Your task to perform on an android device: change notifications settings Image 0: 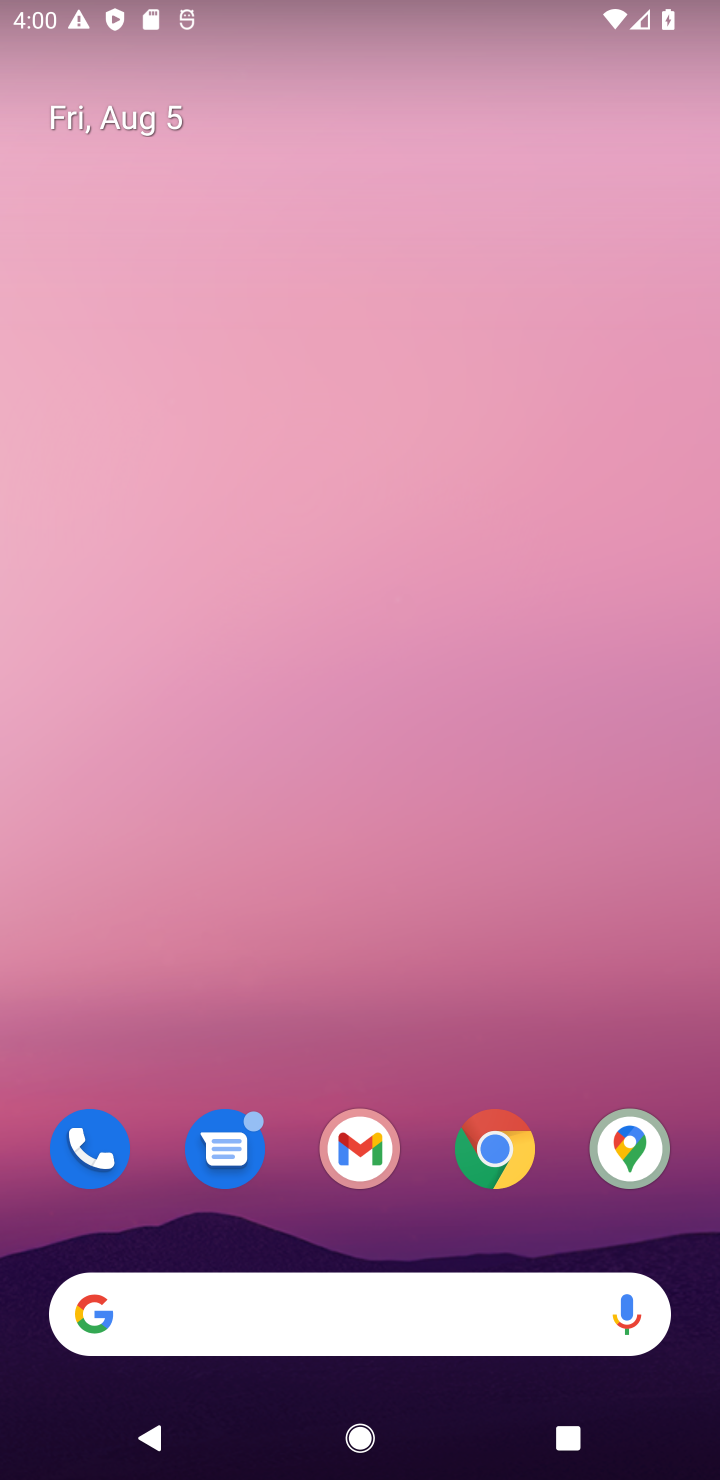
Step 0: drag from (272, 1219) to (579, 59)
Your task to perform on an android device: change notifications settings Image 1: 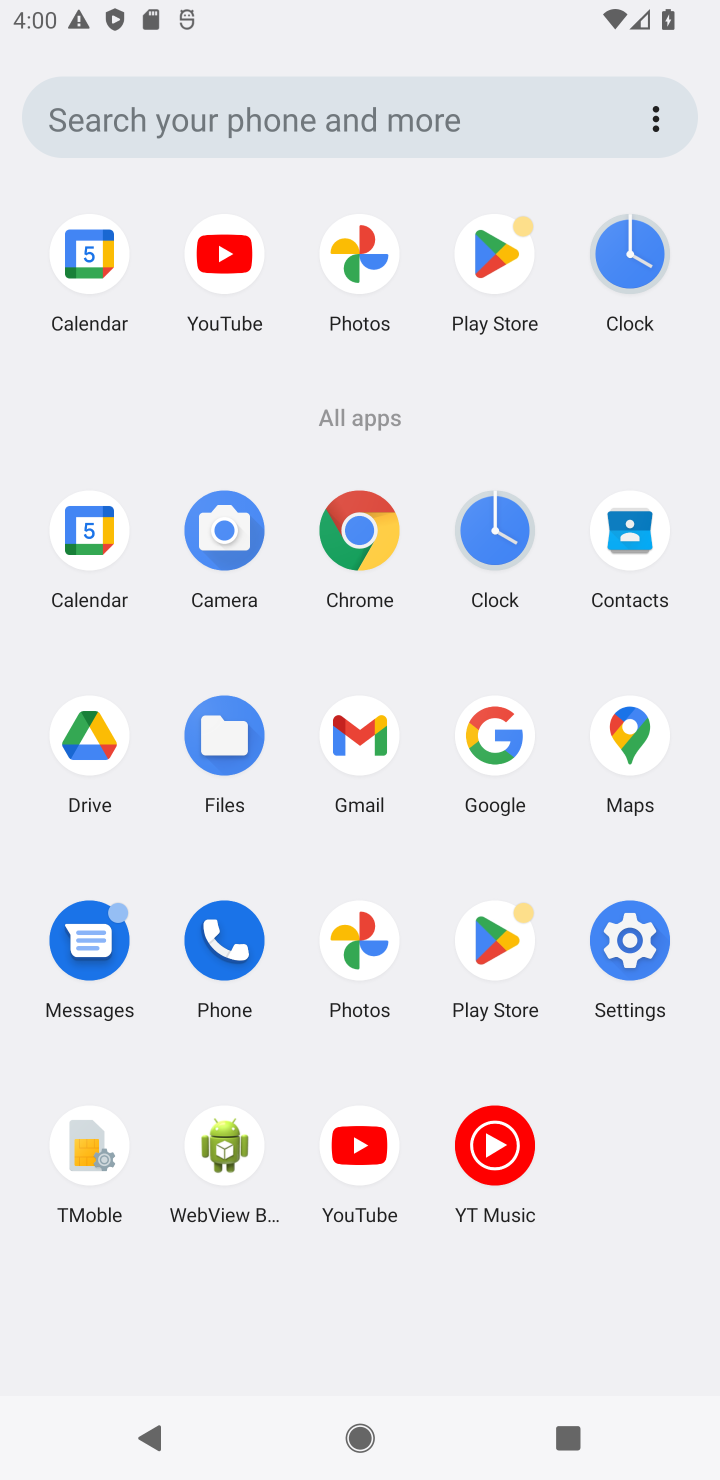
Step 1: click (622, 945)
Your task to perform on an android device: change notifications settings Image 2: 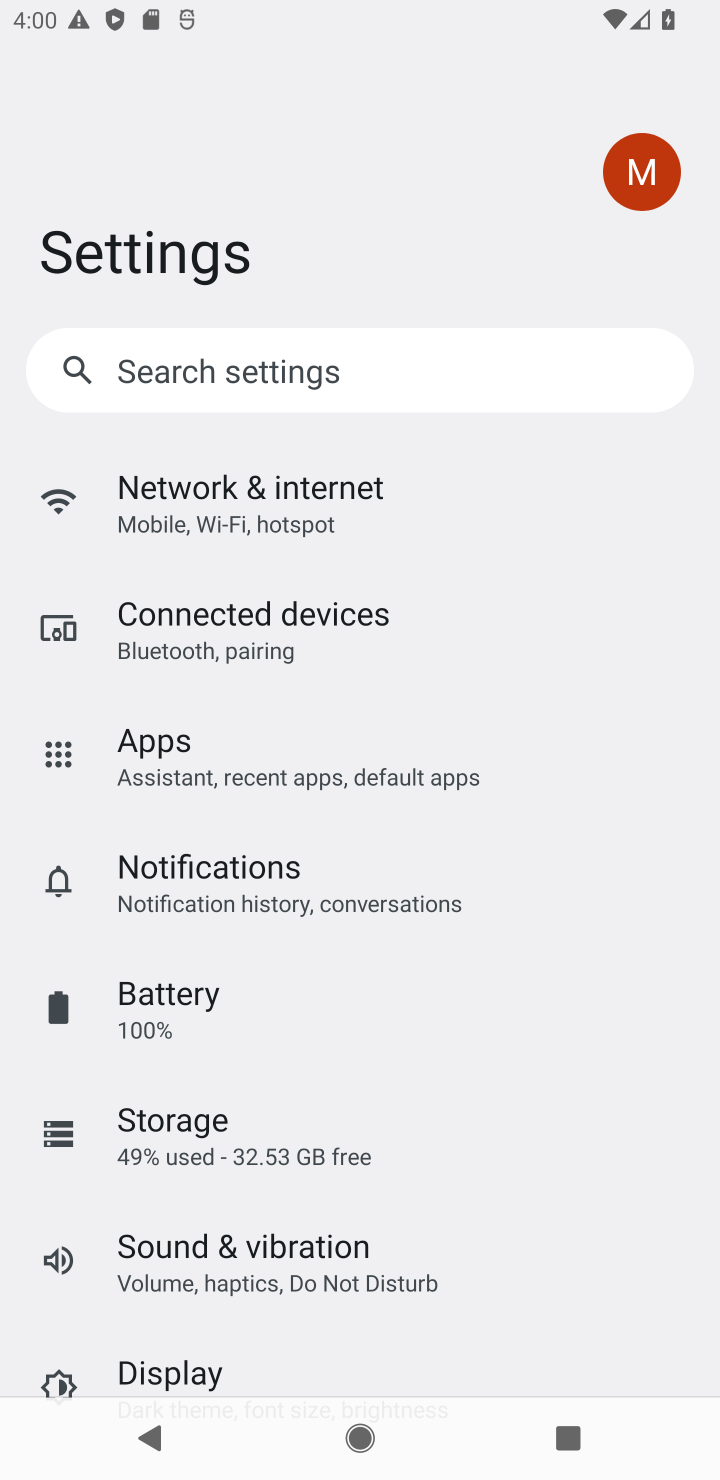
Step 2: click (281, 873)
Your task to perform on an android device: change notifications settings Image 3: 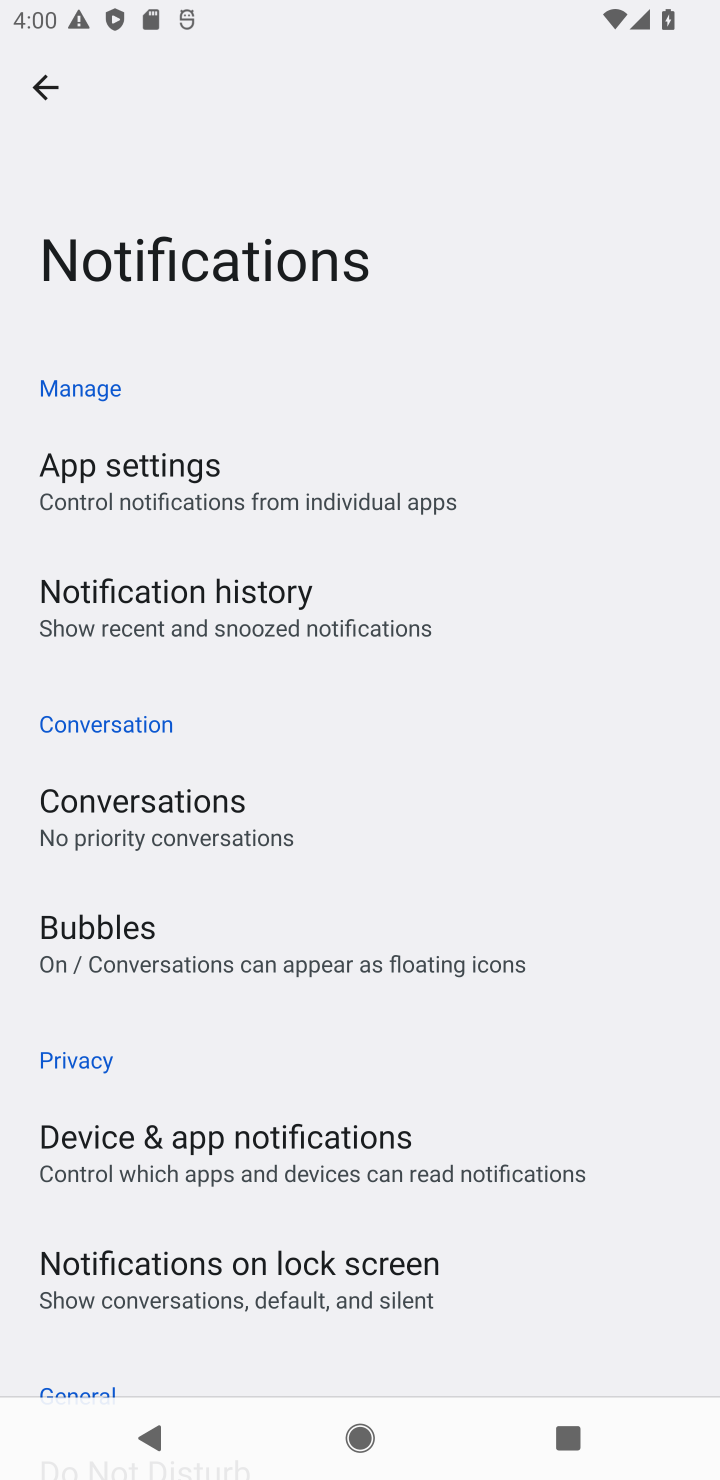
Step 3: drag from (306, 1273) to (463, 501)
Your task to perform on an android device: change notifications settings Image 4: 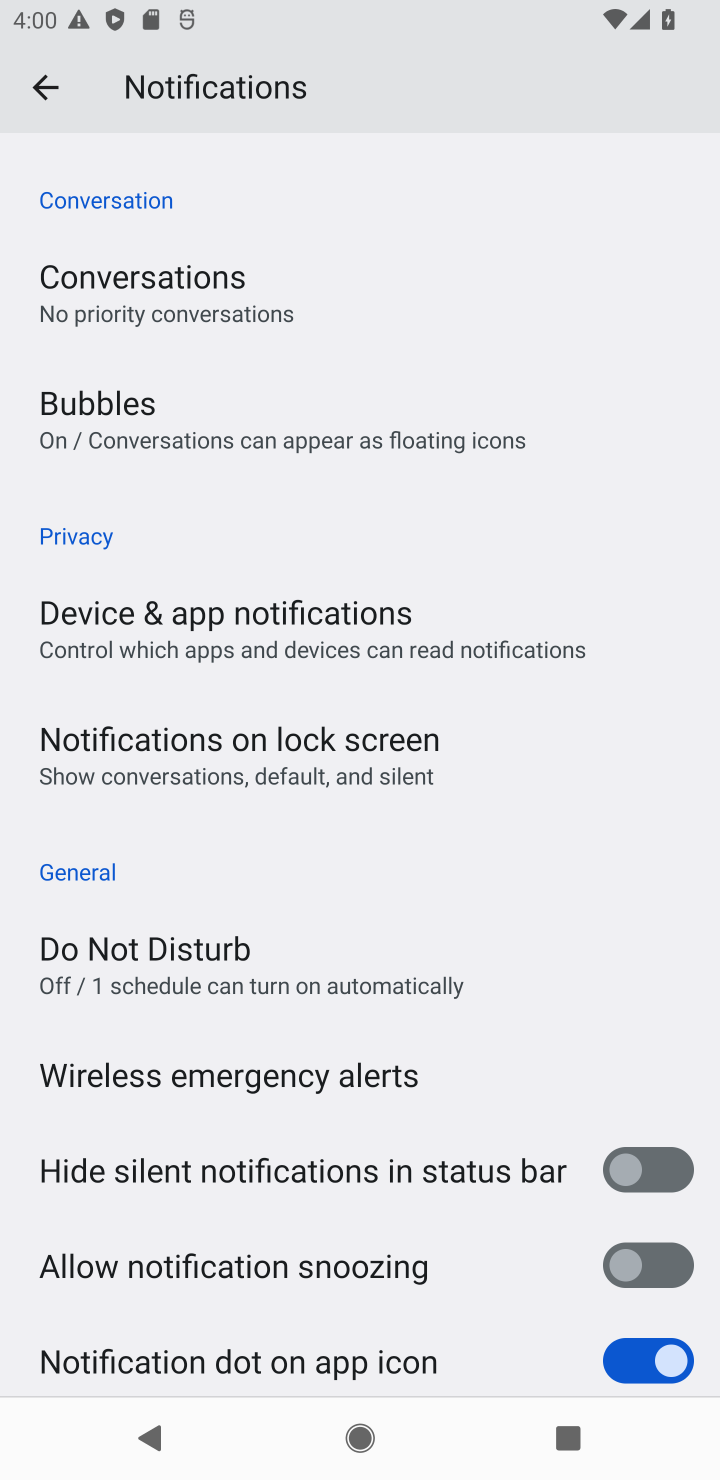
Step 4: click (645, 1260)
Your task to perform on an android device: change notifications settings Image 5: 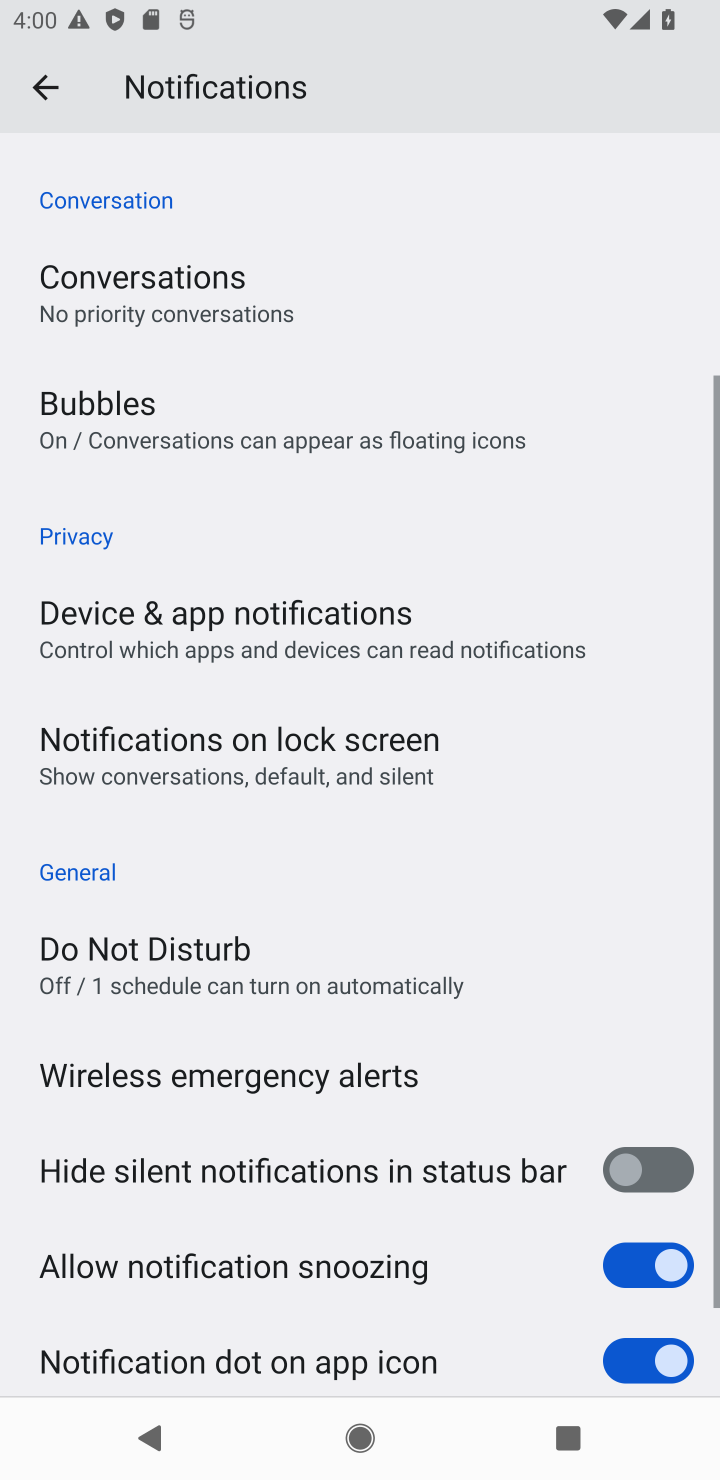
Step 5: task complete